Your task to perform on an android device: move an email to a new category in the gmail app Image 0: 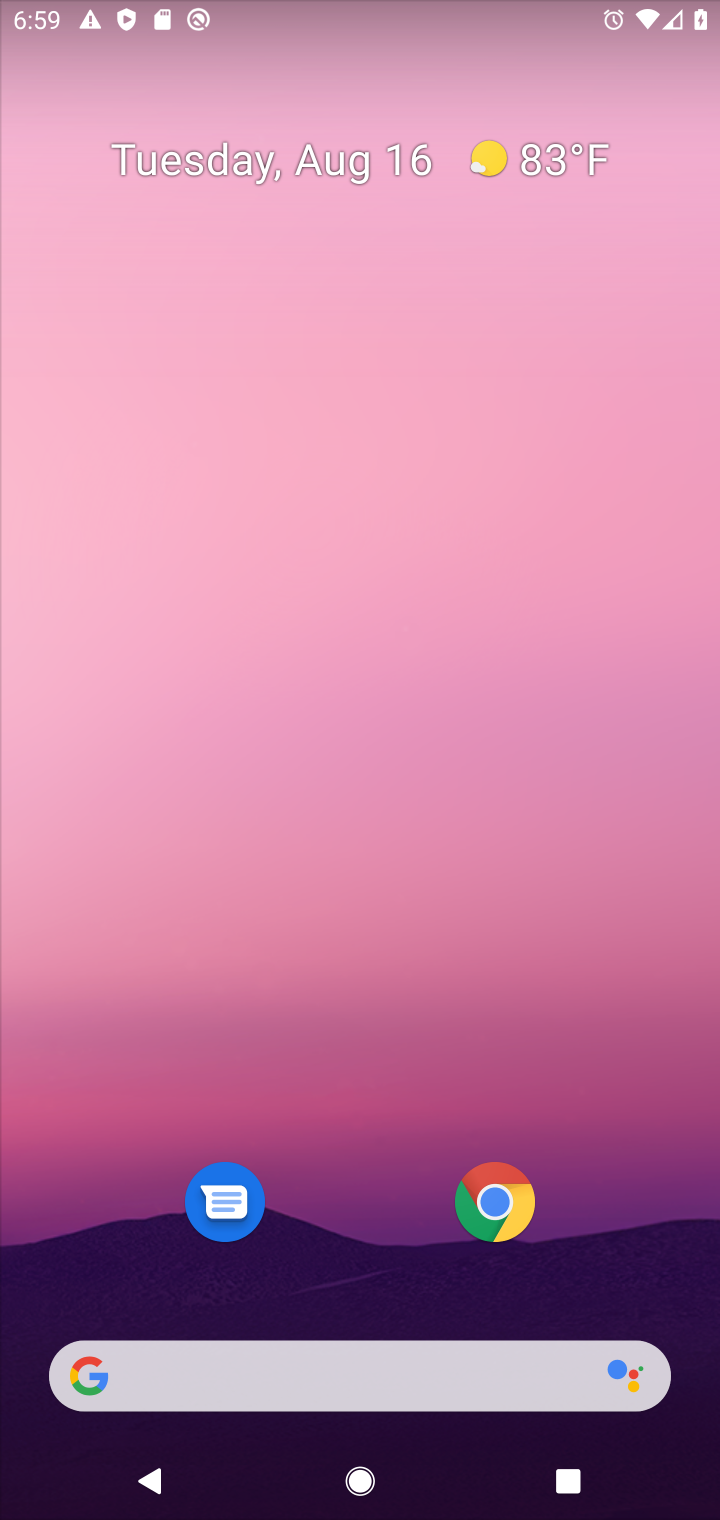
Step 0: drag from (689, 1276) to (442, 102)
Your task to perform on an android device: move an email to a new category in the gmail app Image 1: 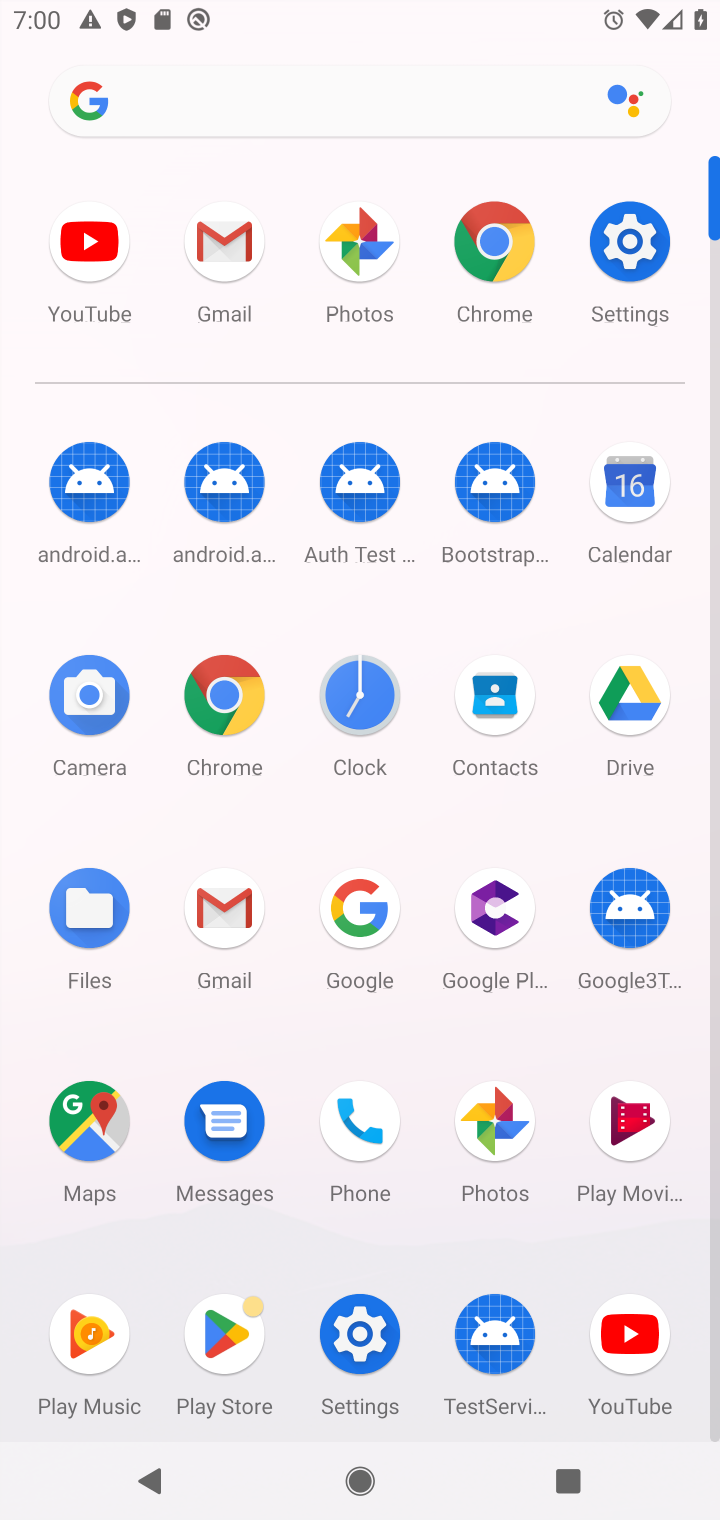
Step 1: click (239, 921)
Your task to perform on an android device: move an email to a new category in the gmail app Image 2: 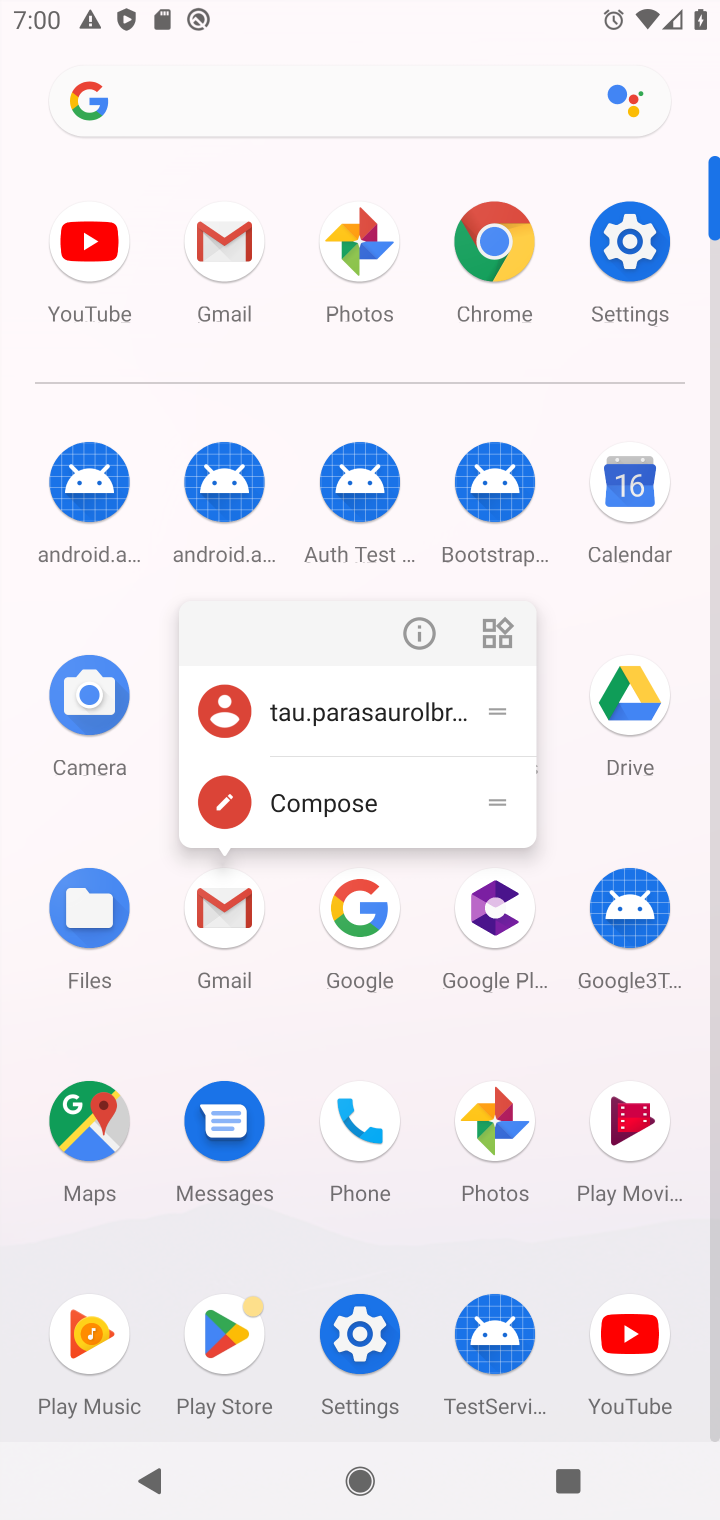
Step 2: click (239, 921)
Your task to perform on an android device: move an email to a new category in the gmail app Image 3: 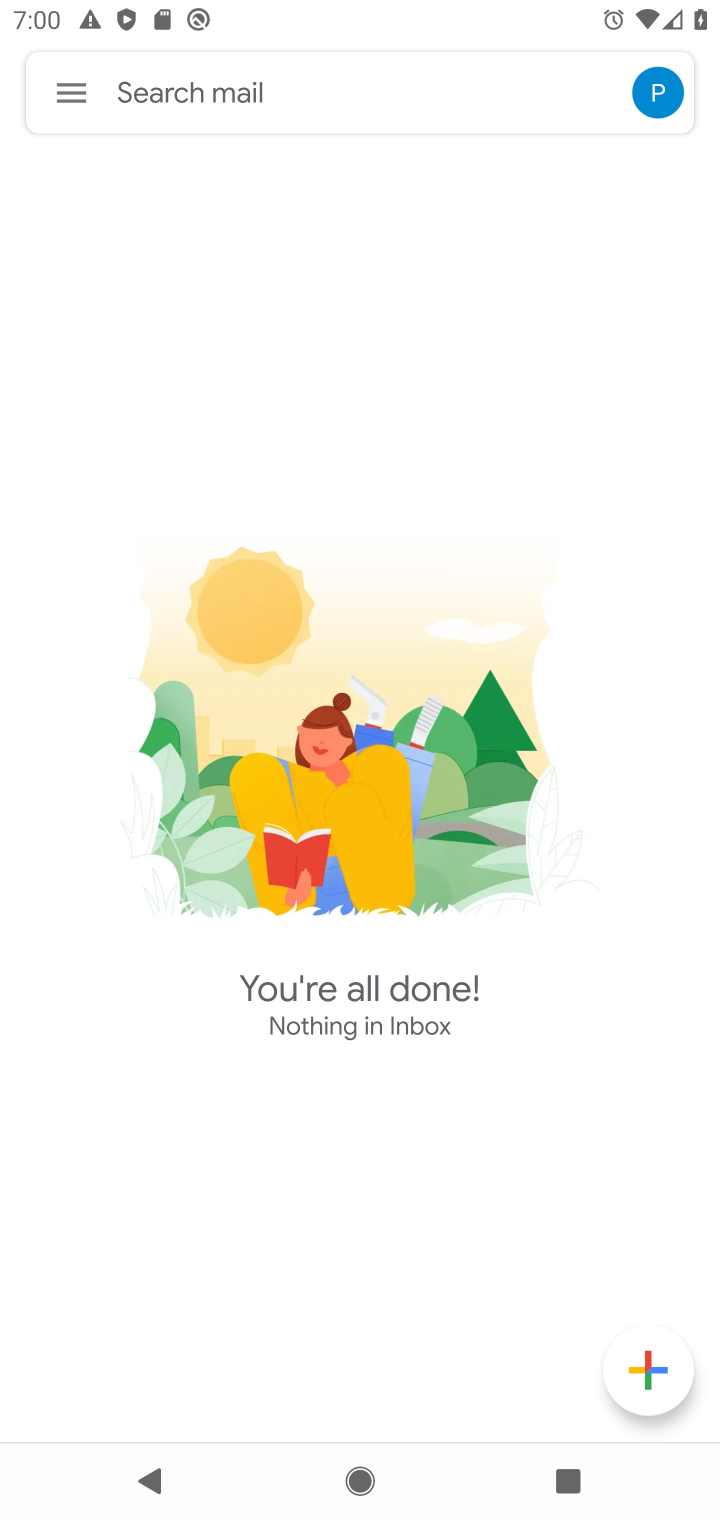
Step 3: task complete